Your task to perform on an android device: Open wifi settings Image 0: 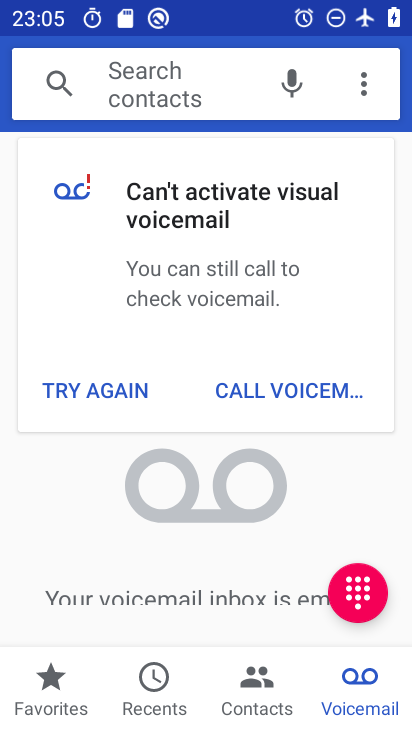
Step 0: press home button
Your task to perform on an android device: Open wifi settings Image 1: 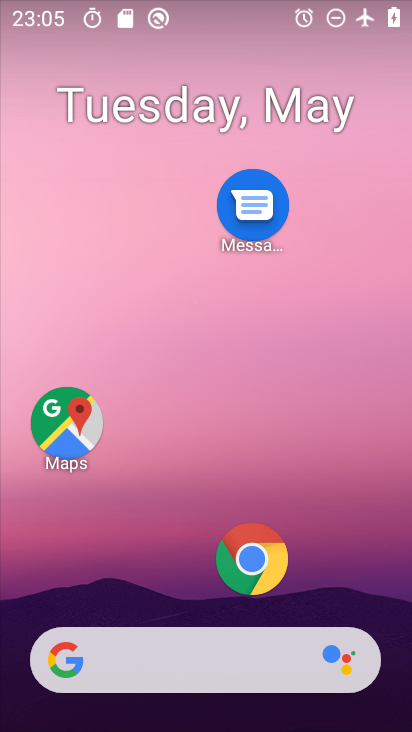
Step 1: drag from (192, 595) to (185, 130)
Your task to perform on an android device: Open wifi settings Image 2: 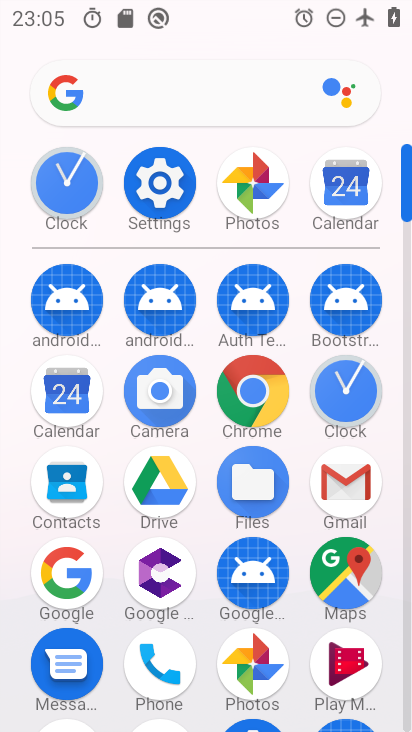
Step 2: click (155, 189)
Your task to perform on an android device: Open wifi settings Image 3: 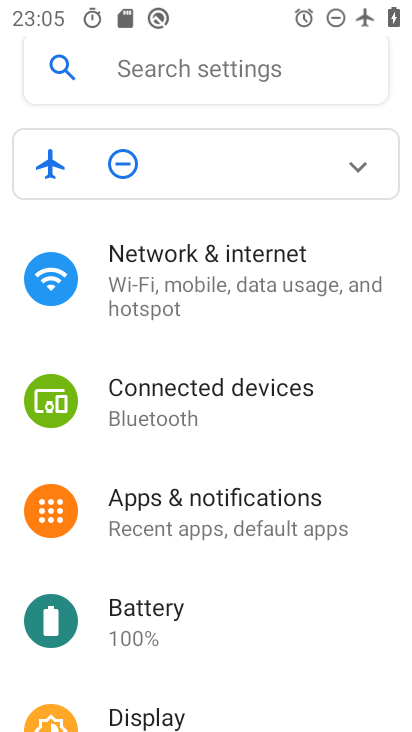
Step 3: click (163, 253)
Your task to perform on an android device: Open wifi settings Image 4: 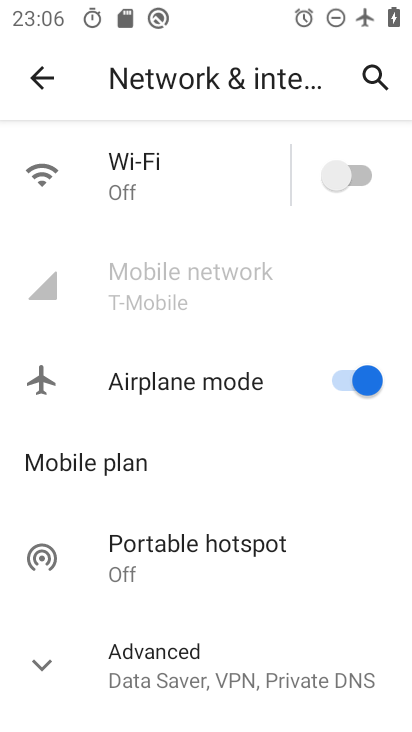
Step 4: click (164, 205)
Your task to perform on an android device: Open wifi settings Image 5: 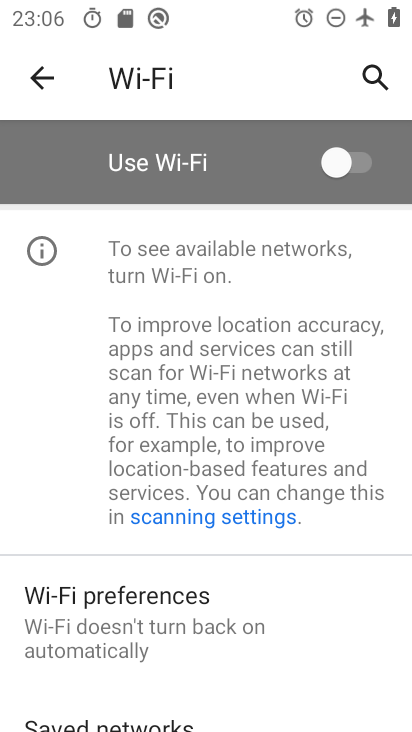
Step 5: task complete